Your task to perform on an android device: check out phone information Image 0: 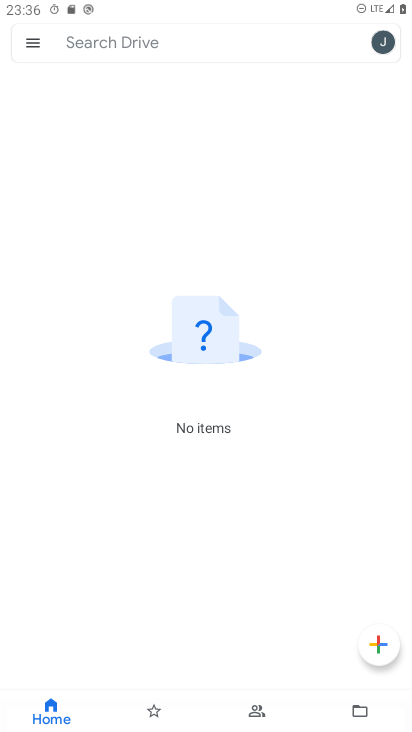
Step 0: press home button
Your task to perform on an android device: check out phone information Image 1: 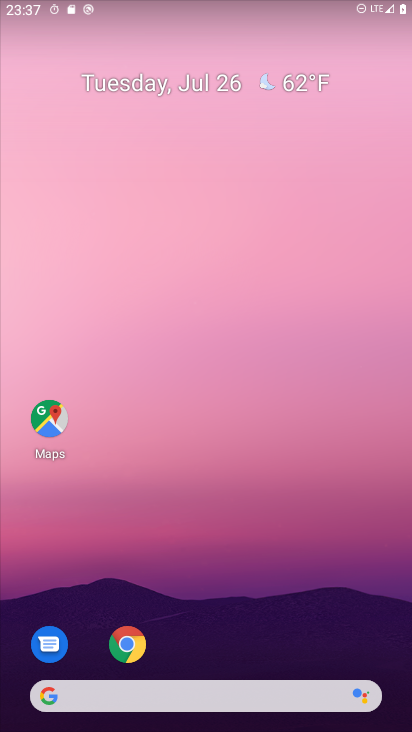
Step 1: drag from (259, 648) to (246, 83)
Your task to perform on an android device: check out phone information Image 2: 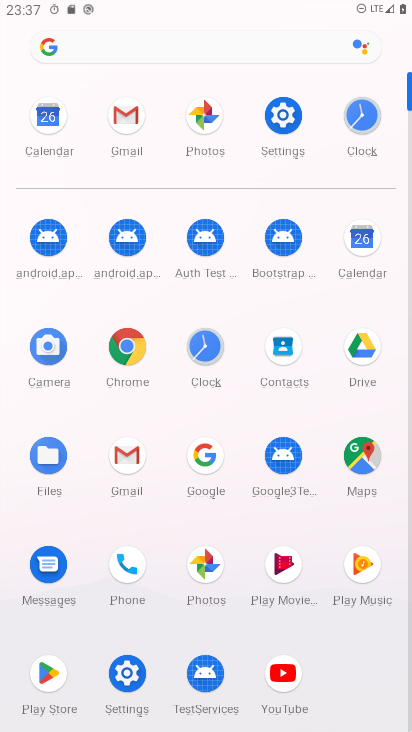
Step 2: click (282, 120)
Your task to perform on an android device: check out phone information Image 3: 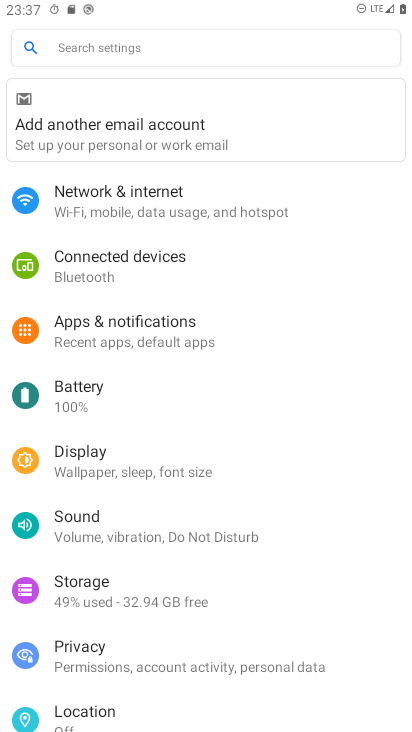
Step 3: drag from (246, 628) to (253, 105)
Your task to perform on an android device: check out phone information Image 4: 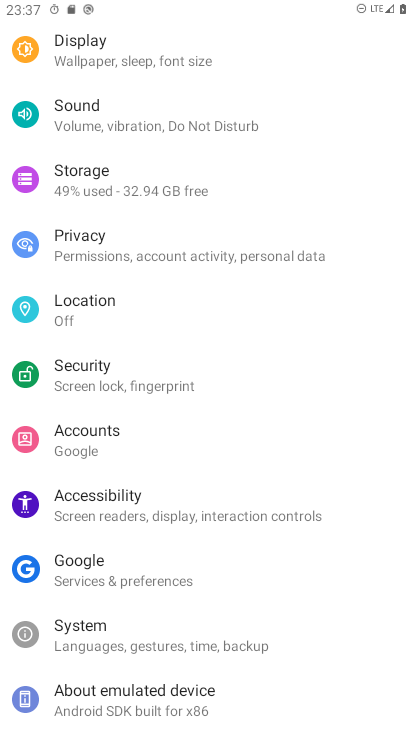
Step 4: click (161, 696)
Your task to perform on an android device: check out phone information Image 5: 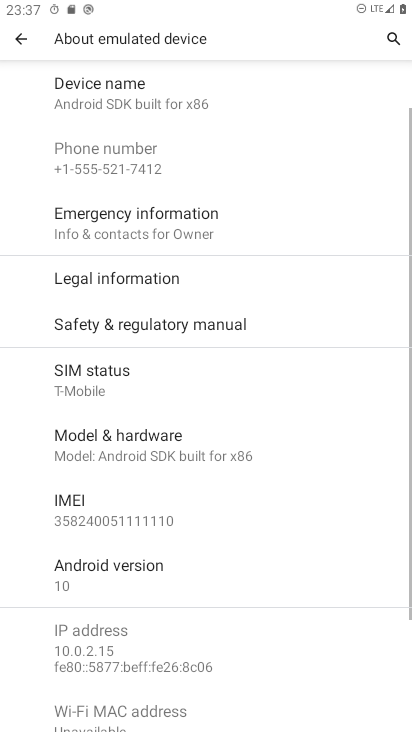
Step 5: task complete